Your task to perform on an android device: Go to display settings Image 0: 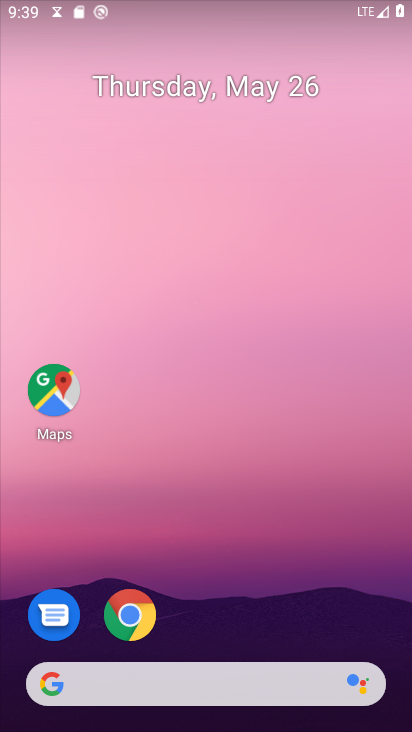
Step 0: drag from (181, 553) to (224, 283)
Your task to perform on an android device: Go to display settings Image 1: 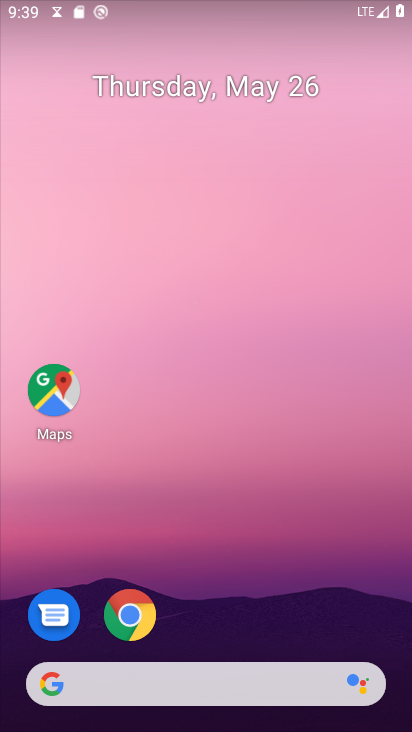
Step 1: drag from (202, 636) to (267, 240)
Your task to perform on an android device: Go to display settings Image 2: 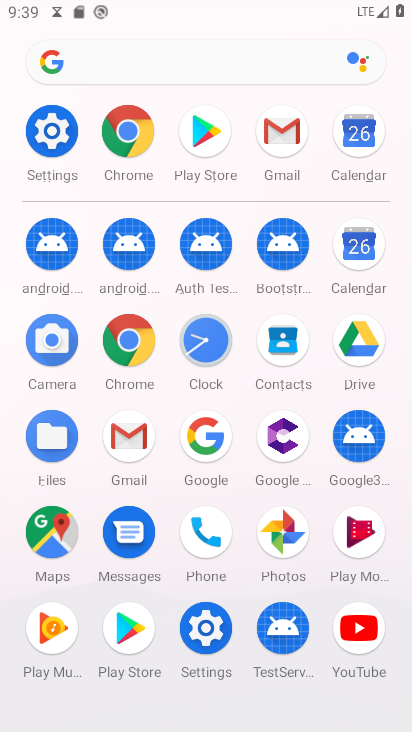
Step 2: click (44, 135)
Your task to perform on an android device: Go to display settings Image 3: 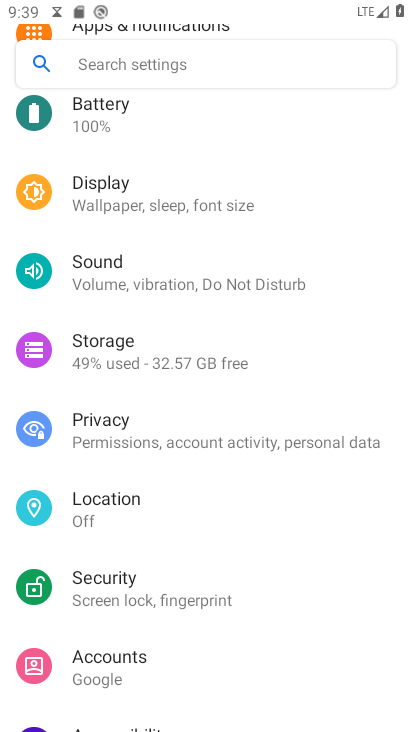
Step 3: click (142, 184)
Your task to perform on an android device: Go to display settings Image 4: 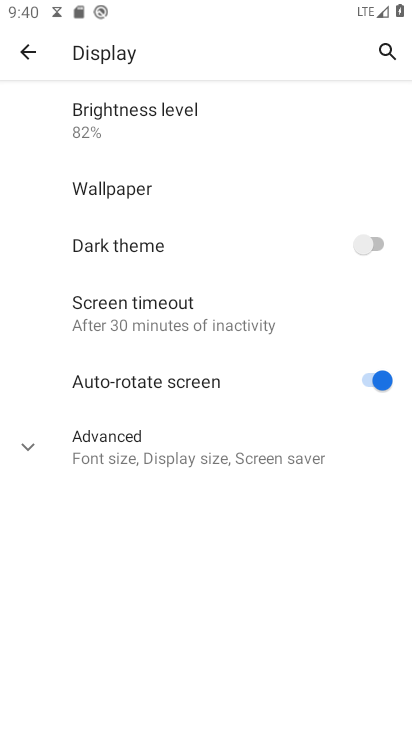
Step 4: task complete